Your task to perform on an android device: What's the news about the US stock market? Image 0: 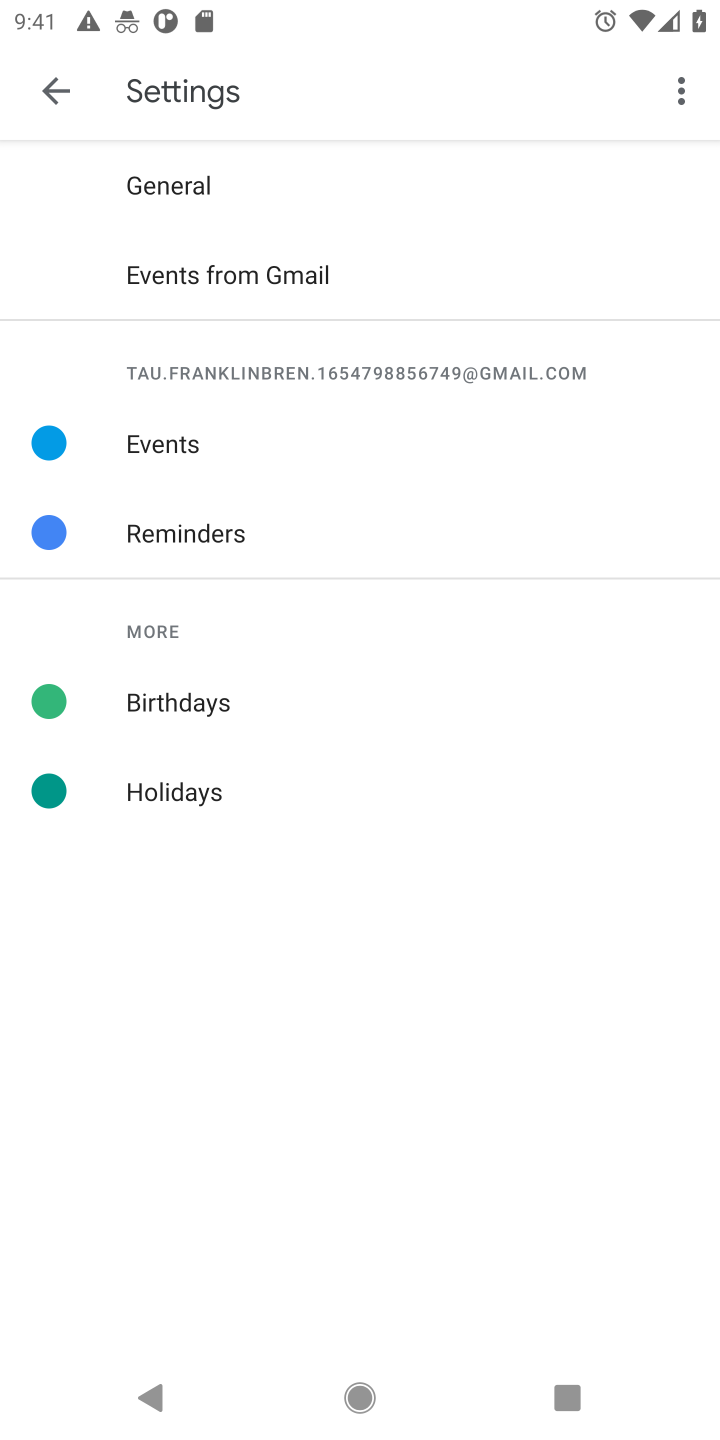
Step 0: press home button
Your task to perform on an android device: What's the news about the US stock market? Image 1: 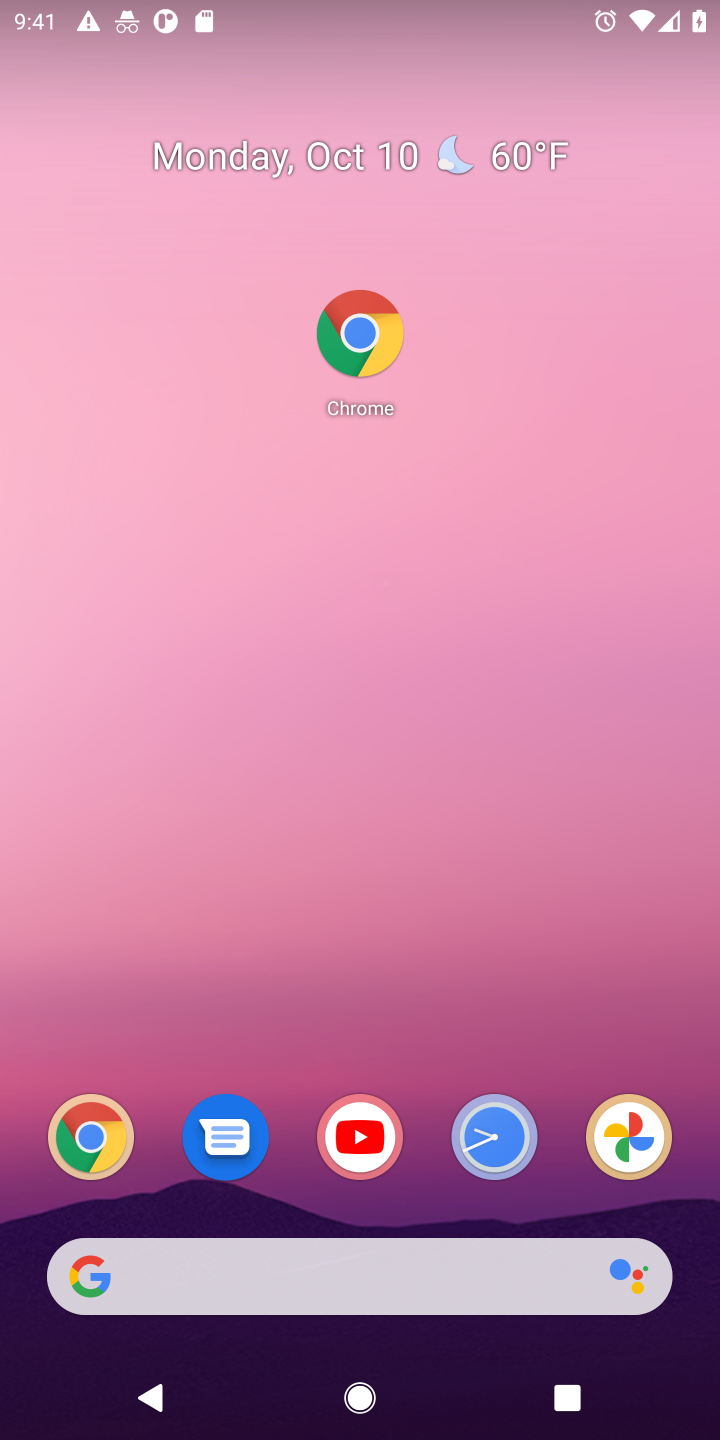
Step 1: click (352, 330)
Your task to perform on an android device: What's the news about the US stock market? Image 2: 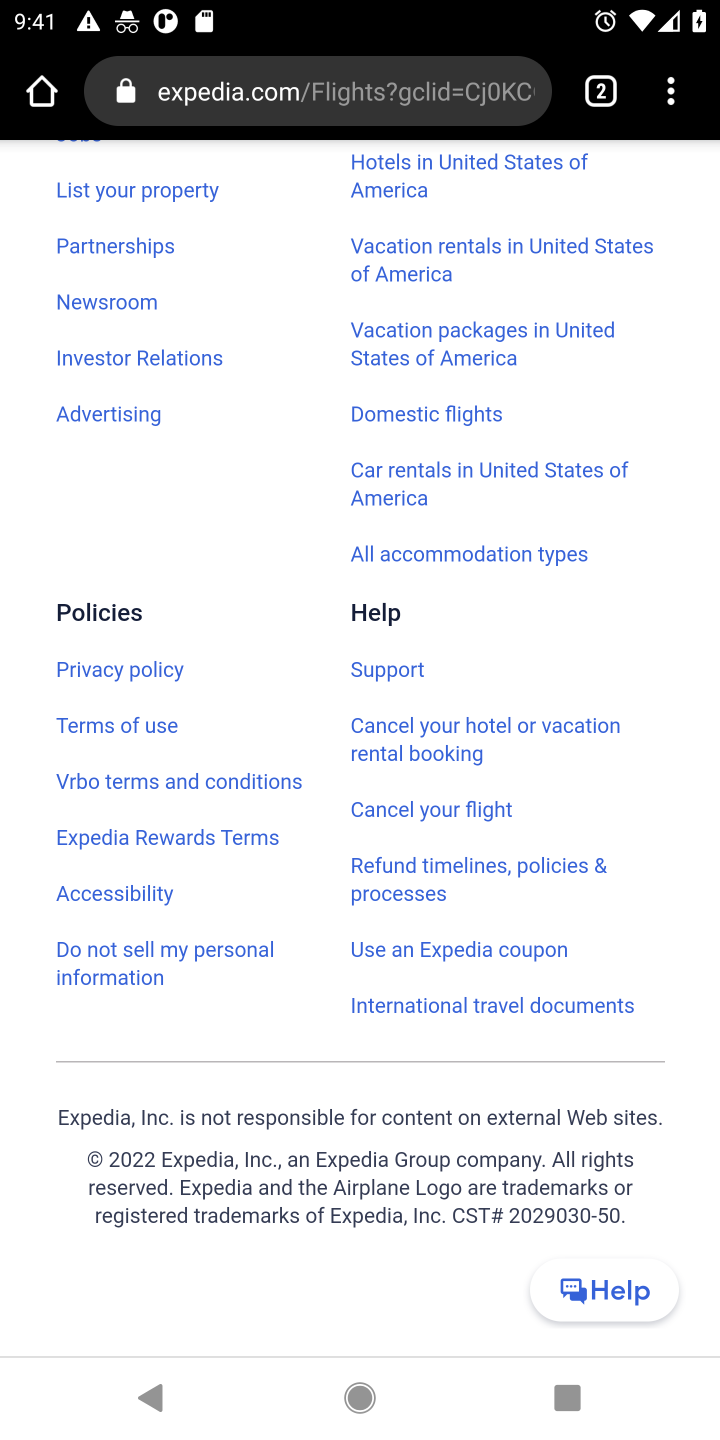
Step 2: click (307, 66)
Your task to perform on an android device: What's the news about the US stock market? Image 3: 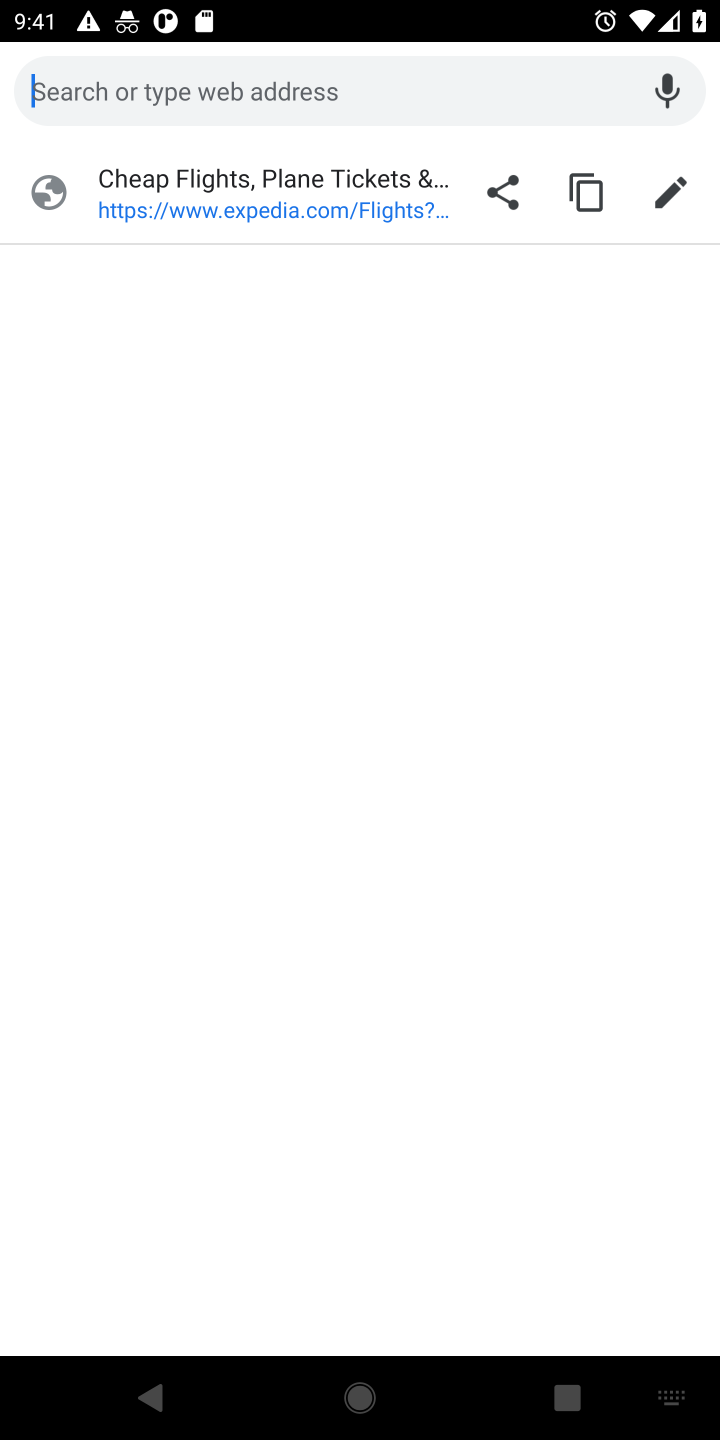
Step 3: type "news about the US stock market"
Your task to perform on an android device: What's the news about the US stock market? Image 4: 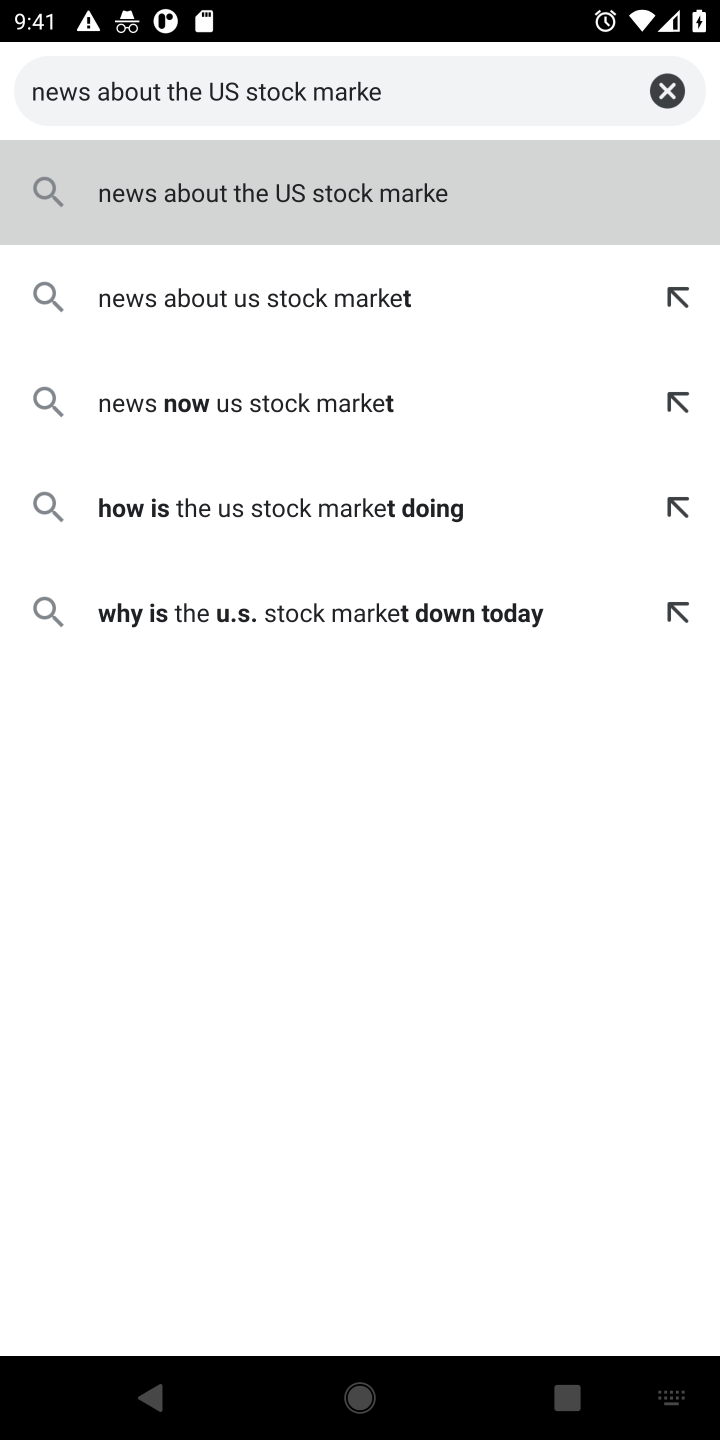
Step 4: click (212, 196)
Your task to perform on an android device: What's the news about the US stock market? Image 5: 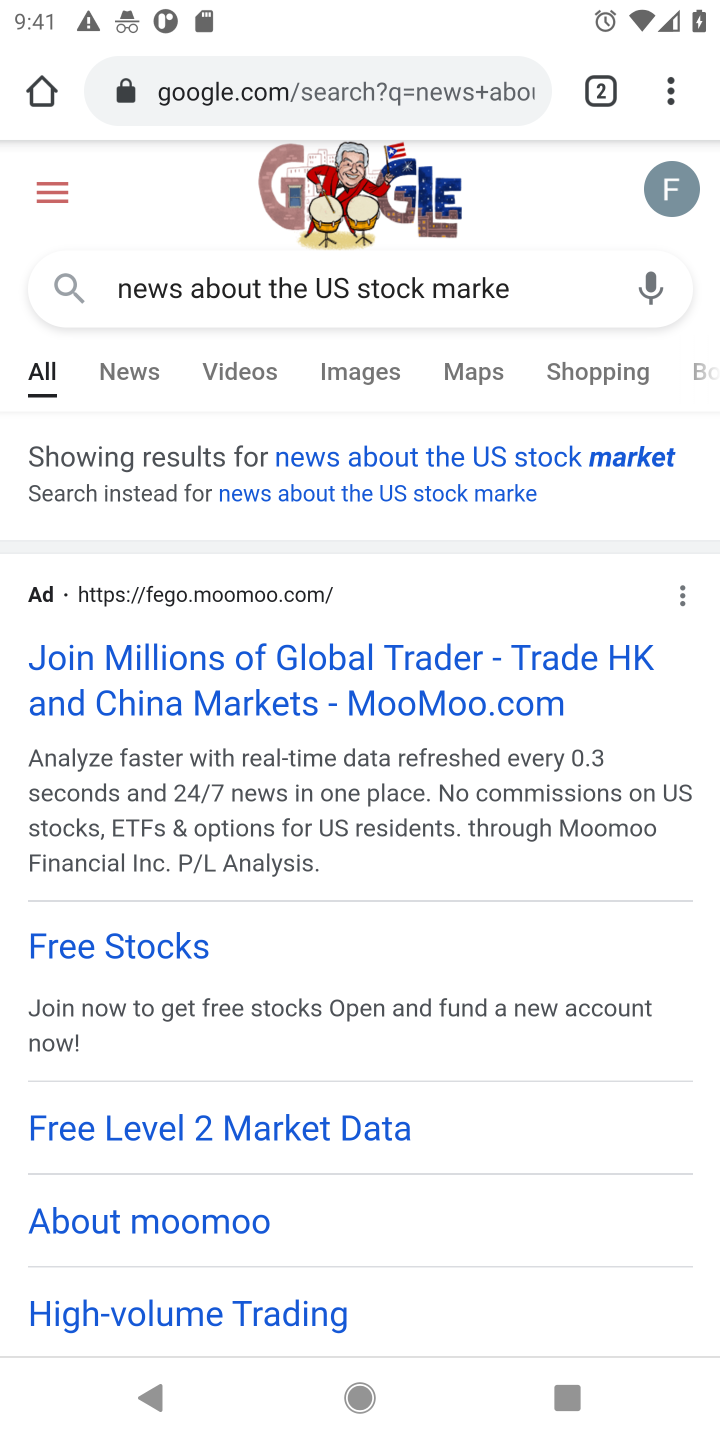
Step 5: click (406, 459)
Your task to perform on an android device: What's the news about the US stock market? Image 6: 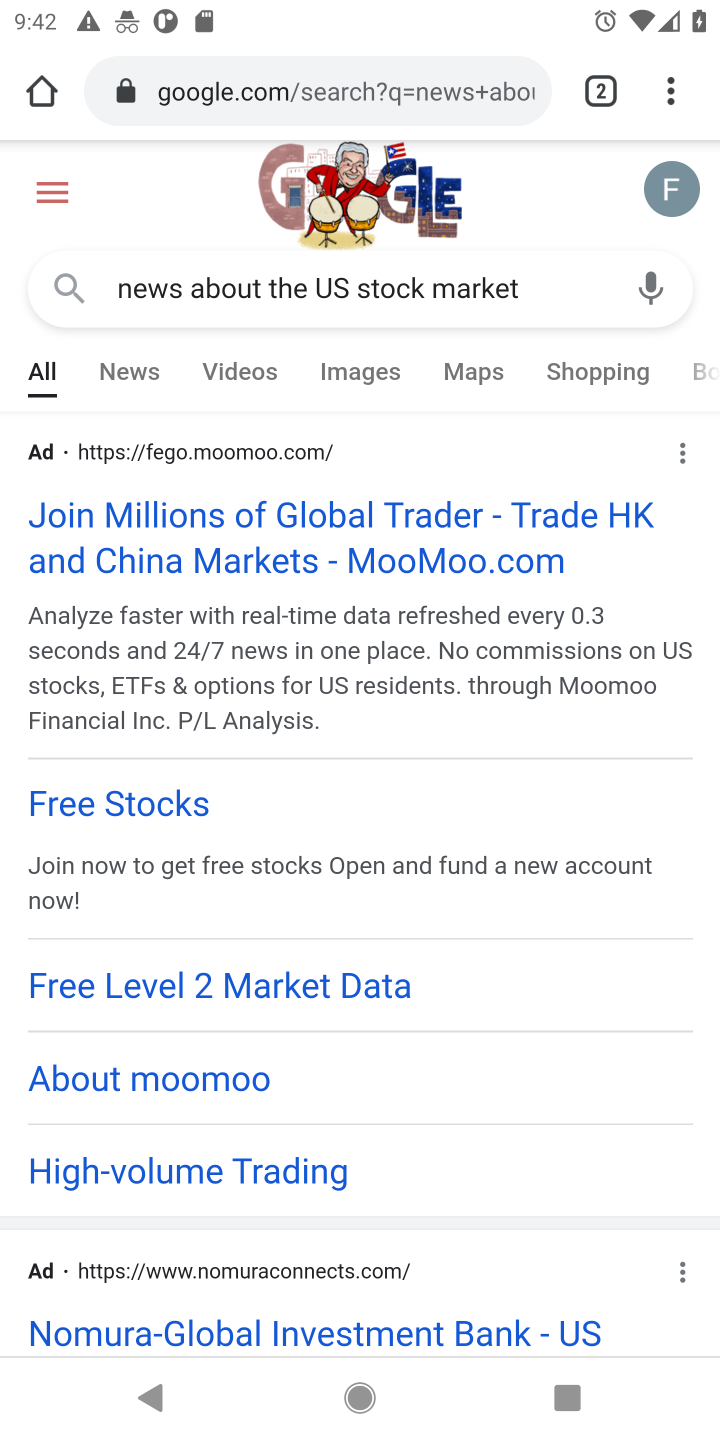
Step 6: drag from (363, 933) to (364, 309)
Your task to perform on an android device: What's the news about the US stock market? Image 7: 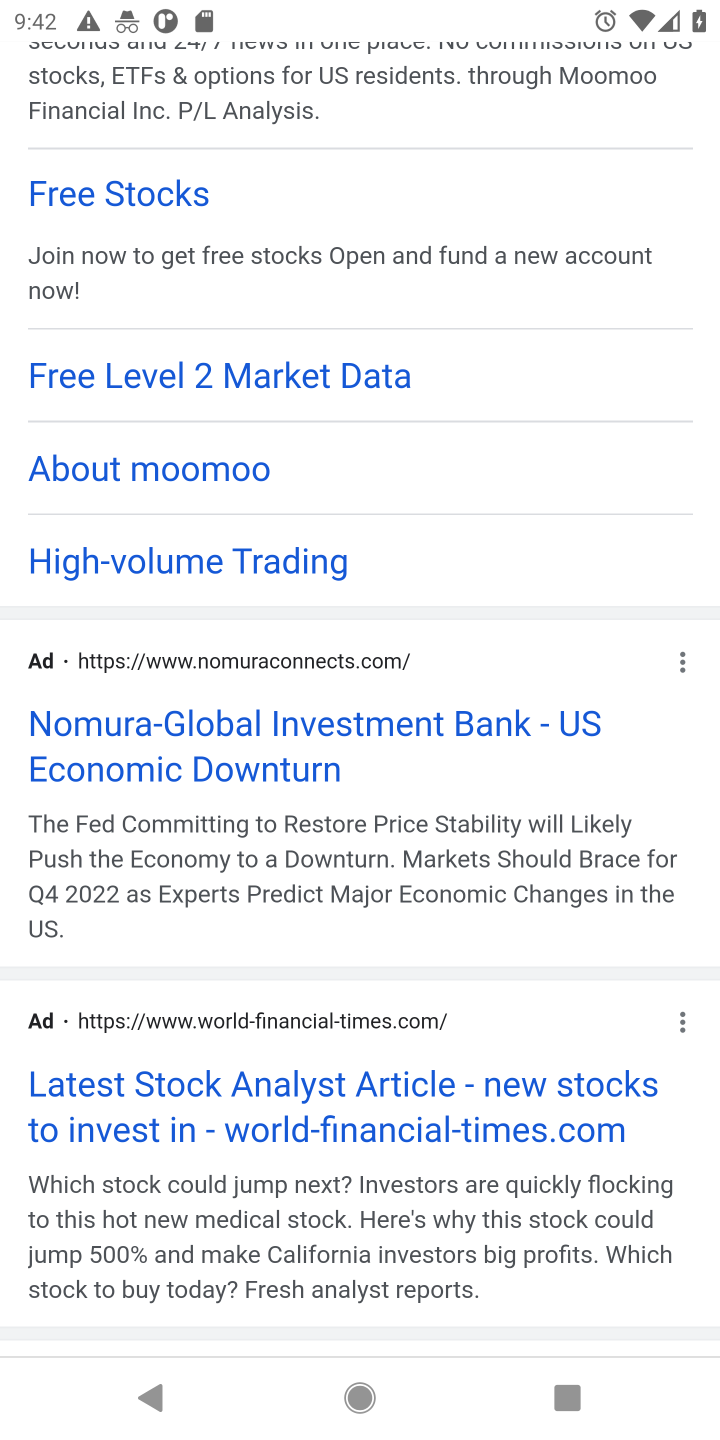
Step 7: click (200, 719)
Your task to perform on an android device: What's the news about the US stock market? Image 8: 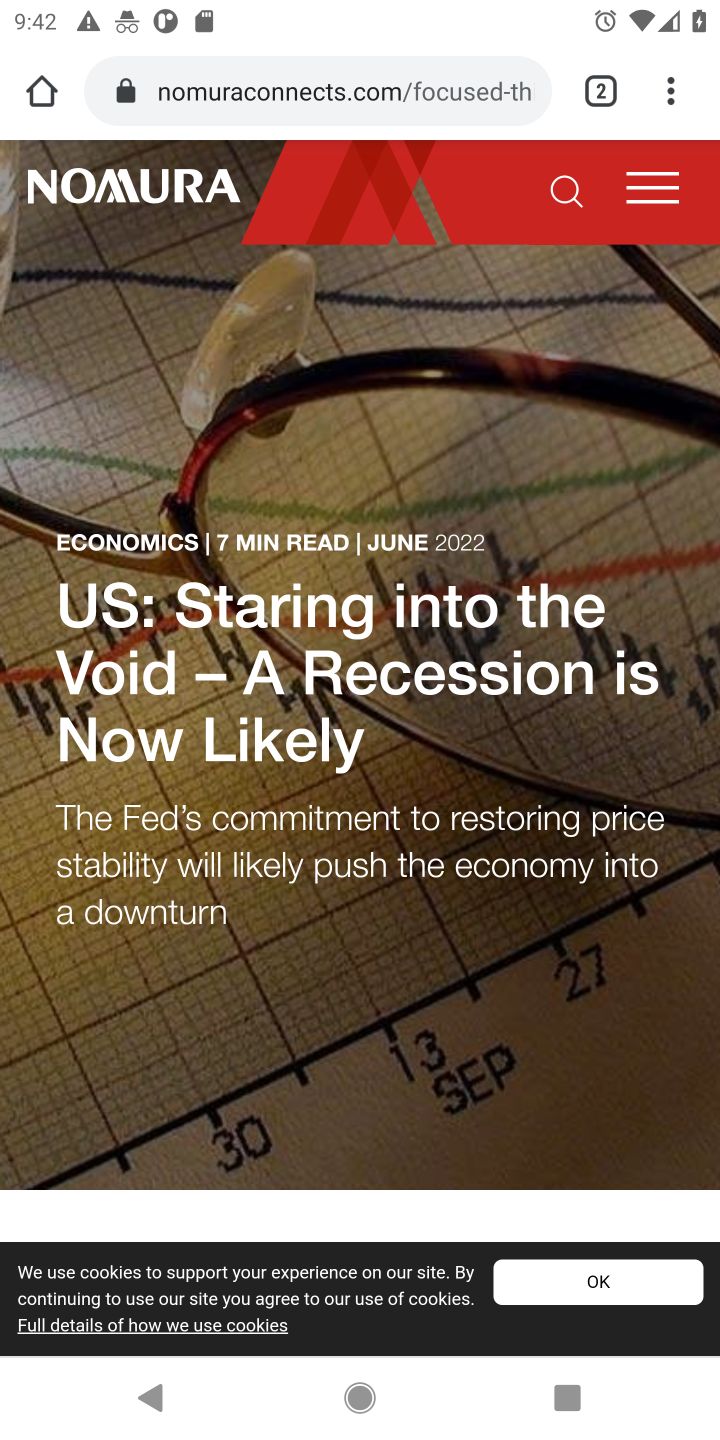
Step 8: task complete